Your task to perform on an android device: turn off javascript in the chrome app Image 0: 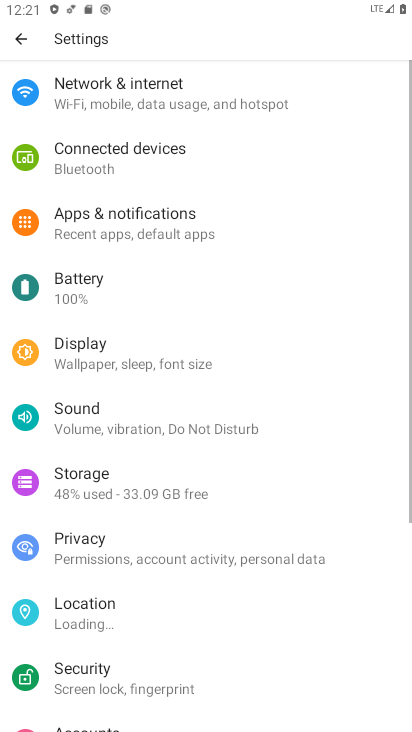
Step 0: press home button
Your task to perform on an android device: turn off javascript in the chrome app Image 1: 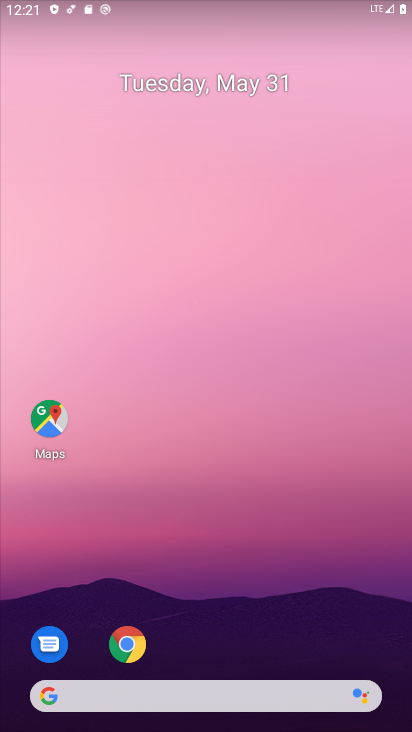
Step 1: click (131, 639)
Your task to perform on an android device: turn off javascript in the chrome app Image 2: 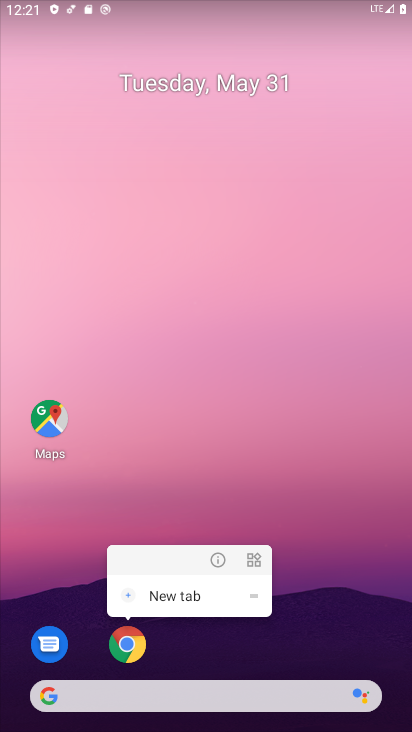
Step 2: click (131, 638)
Your task to perform on an android device: turn off javascript in the chrome app Image 3: 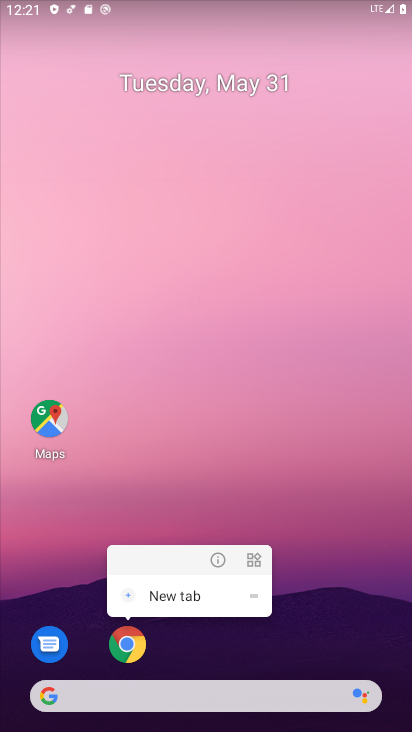
Step 3: click (177, 646)
Your task to perform on an android device: turn off javascript in the chrome app Image 4: 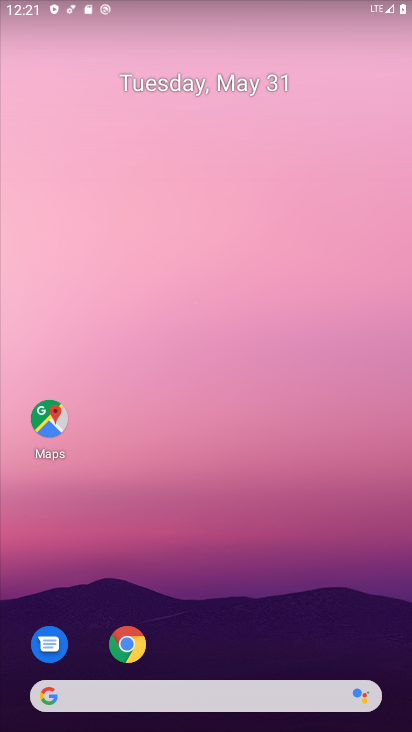
Step 4: drag from (249, 644) to (278, 221)
Your task to perform on an android device: turn off javascript in the chrome app Image 5: 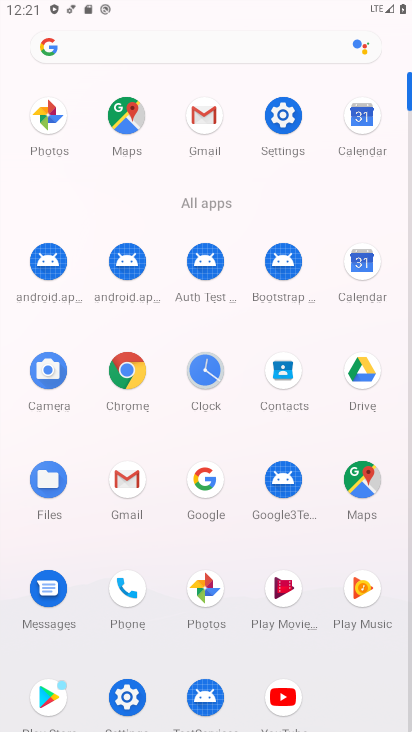
Step 5: click (132, 364)
Your task to perform on an android device: turn off javascript in the chrome app Image 6: 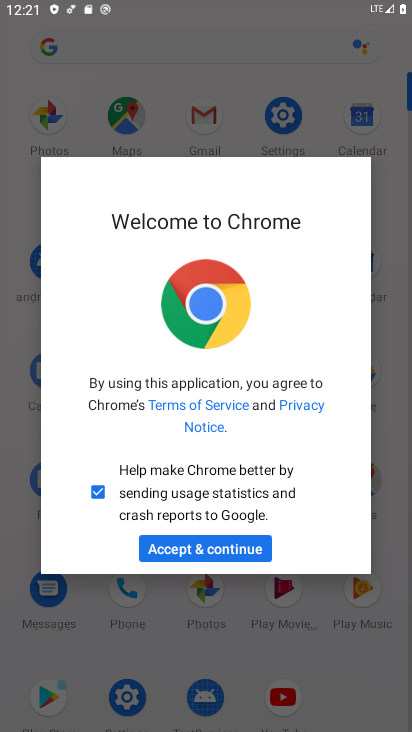
Step 6: click (201, 548)
Your task to perform on an android device: turn off javascript in the chrome app Image 7: 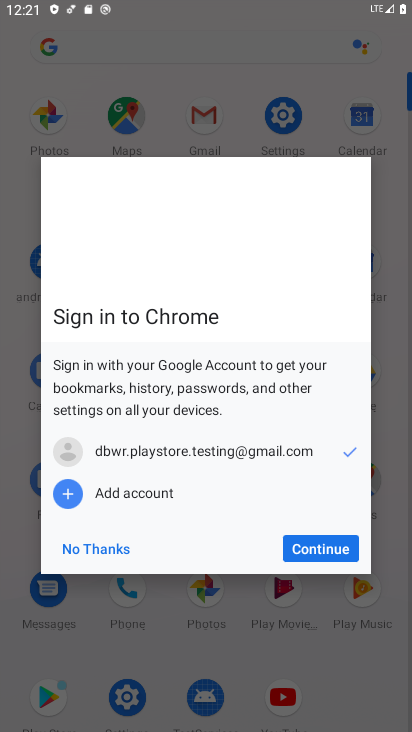
Step 7: click (296, 547)
Your task to perform on an android device: turn off javascript in the chrome app Image 8: 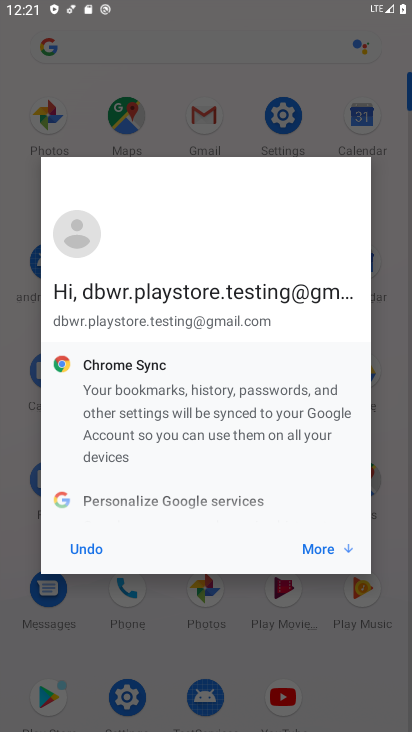
Step 8: click (310, 548)
Your task to perform on an android device: turn off javascript in the chrome app Image 9: 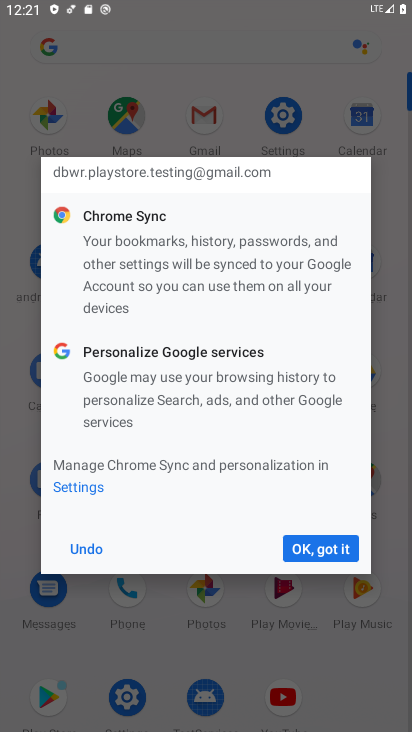
Step 9: click (310, 548)
Your task to perform on an android device: turn off javascript in the chrome app Image 10: 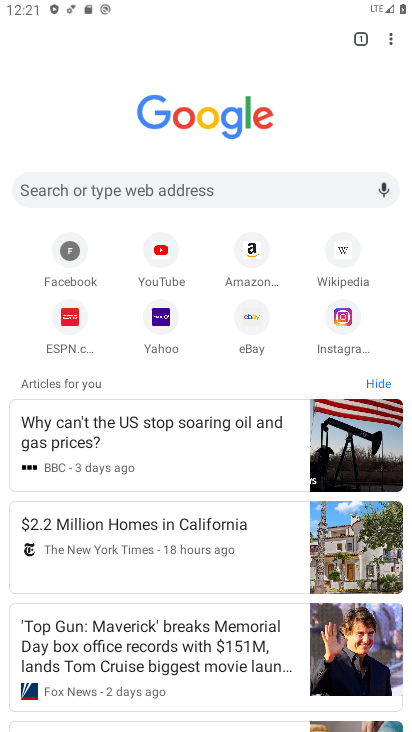
Step 10: drag from (394, 35) to (278, 333)
Your task to perform on an android device: turn off javascript in the chrome app Image 11: 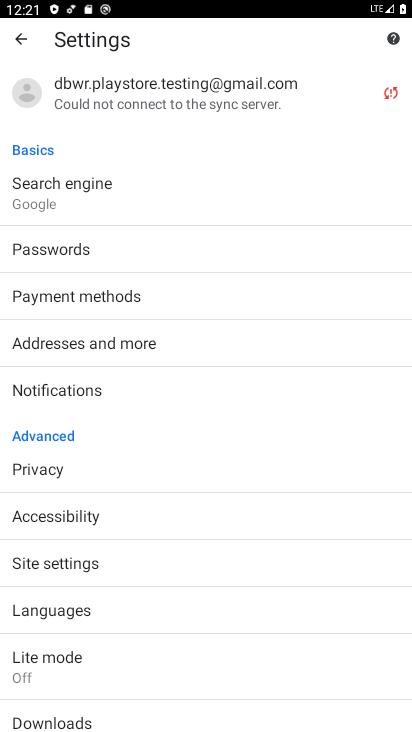
Step 11: click (48, 561)
Your task to perform on an android device: turn off javascript in the chrome app Image 12: 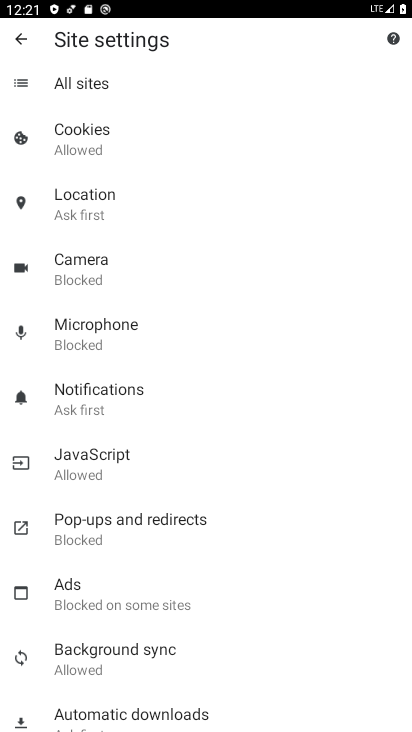
Step 12: click (85, 459)
Your task to perform on an android device: turn off javascript in the chrome app Image 13: 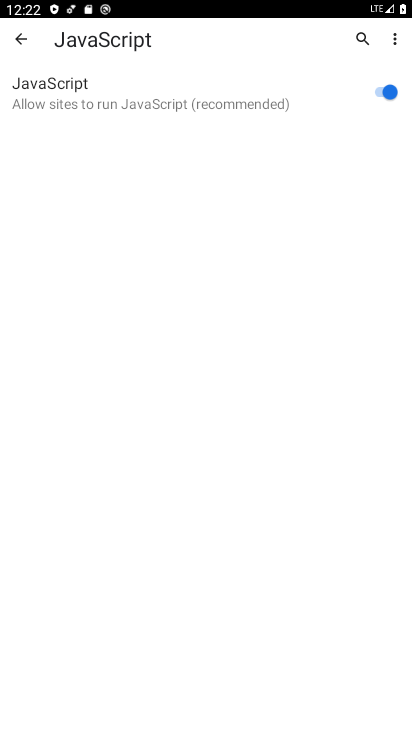
Step 13: click (390, 92)
Your task to perform on an android device: turn off javascript in the chrome app Image 14: 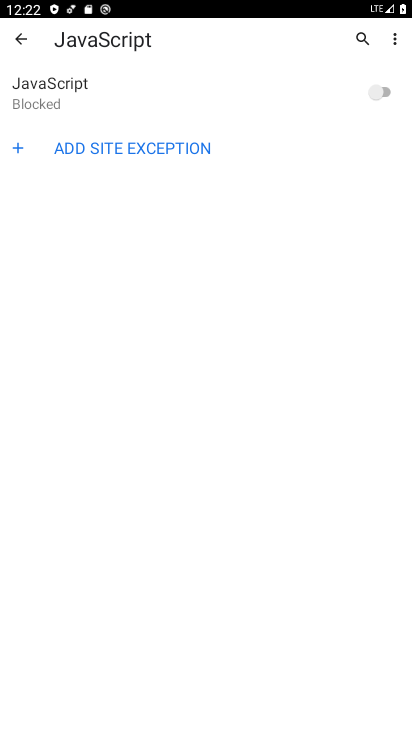
Step 14: task complete